Your task to perform on an android device: Open notification settings Image 0: 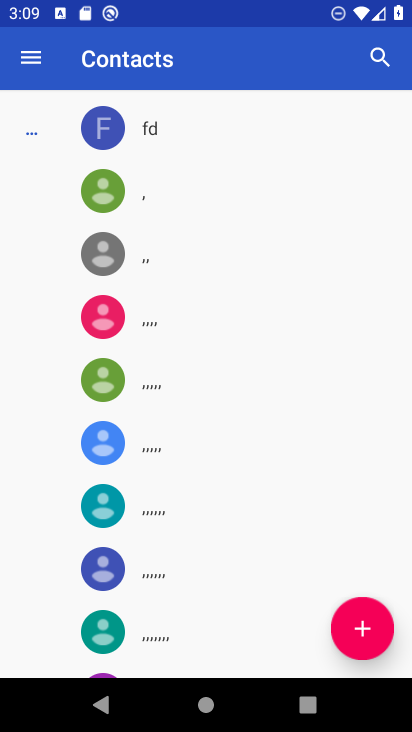
Step 0: press home button
Your task to perform on an android device: Open notification settings Image 1: 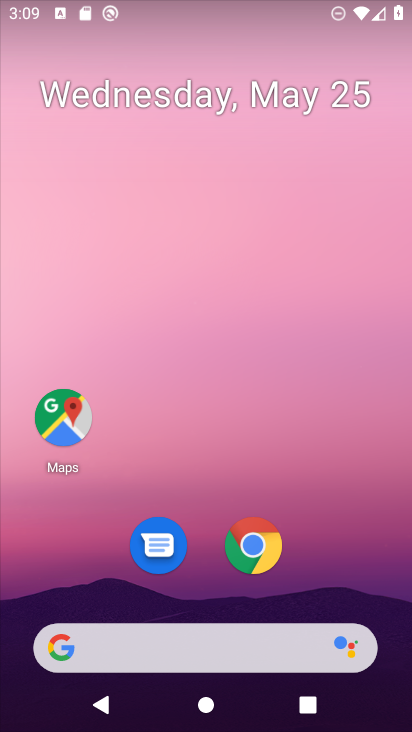
Step 1: drag from (369, 534) to (308, 113)
Your task to perform on an android device: Open notification settings Image 2: 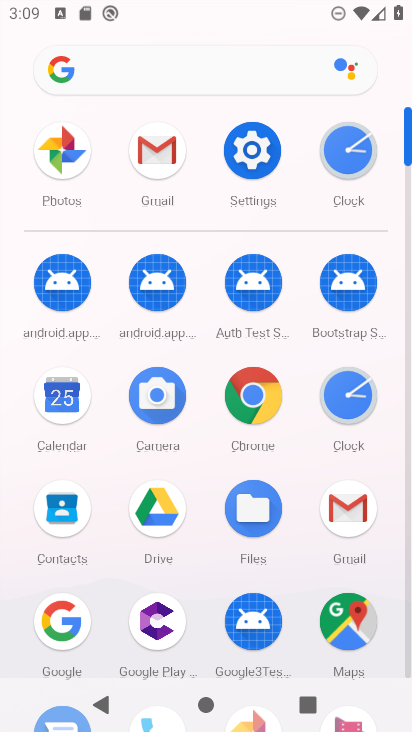
Step 2: click (258, 165)
Your task to perform on an android device: Open notification settings Image 3: 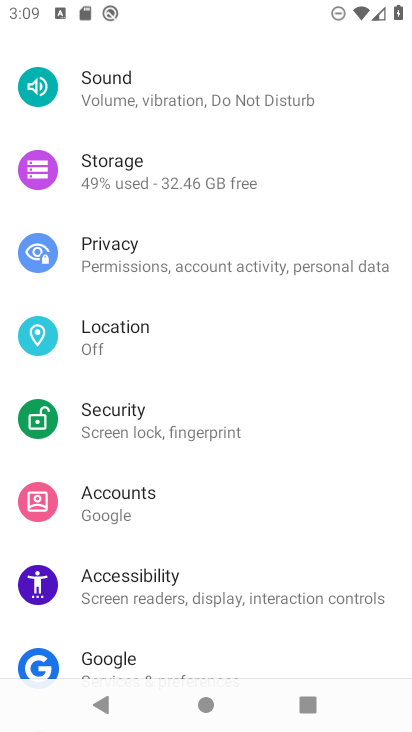
Step 3: drag from (207, 483) to (295, 657)
Your task to perform on an android device: Open notification settings Image 4: 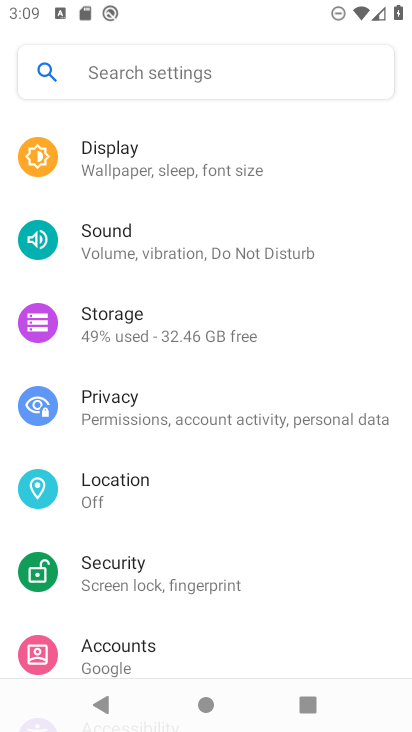
Step 4: drag from (243, 242) to (365, 623)
Your task to perform on an android device: Open notification settings Image 5: 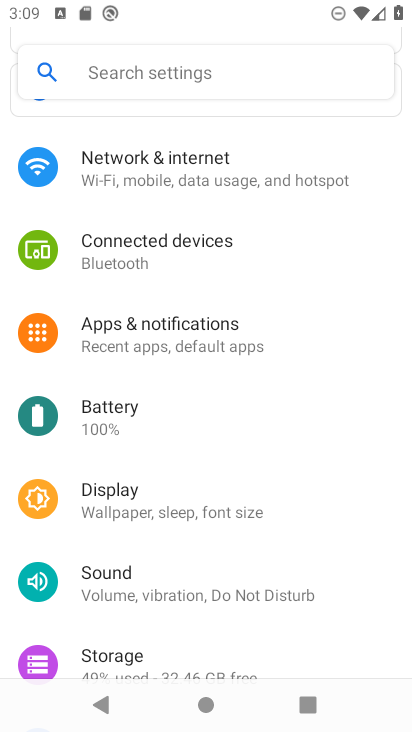
Step 5: click (265, 340)
Your task to perform on an android device: Open notification settings Image 6: 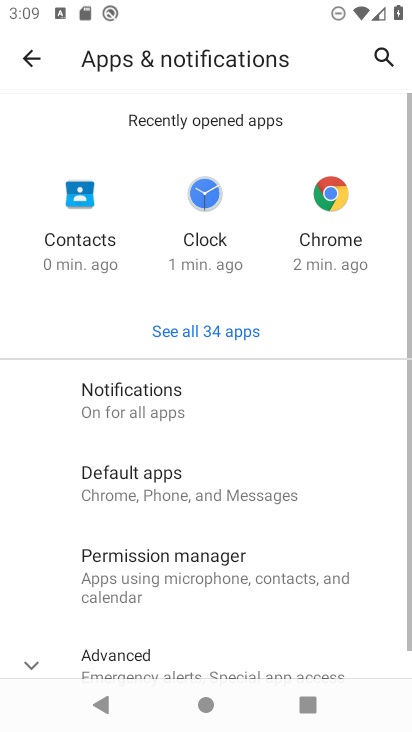
Step 6: task complete